Your task to perform on an android device: Toggle the flashlight Image 0: 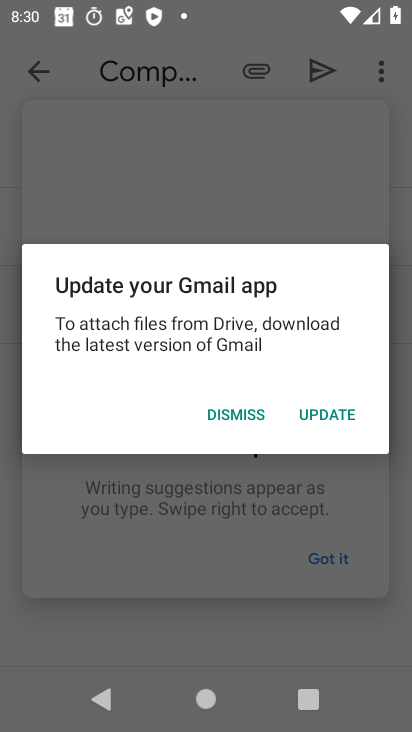
Step 0: press home button
Your task to perform on an android device: Toggle the flashlight Image 1: 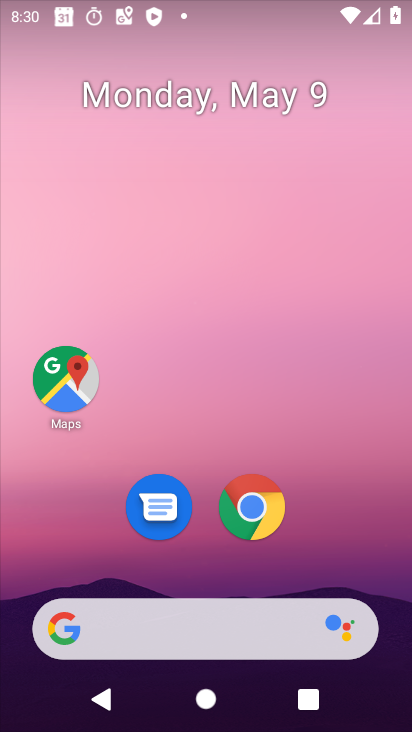
Step 1: drag from (272, 653) to (241, 261)
Your task to perform on an android device: Toggle the flashlight Image 2: 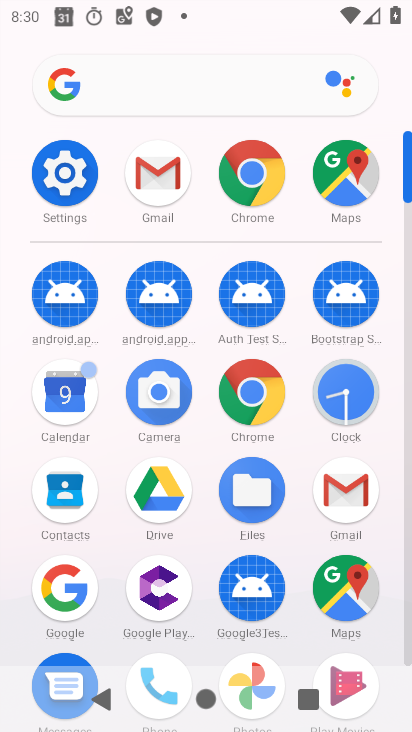
Step 2: click (65, 186)
Your task to perform on an android device: Toggle the flashlight Image 3: 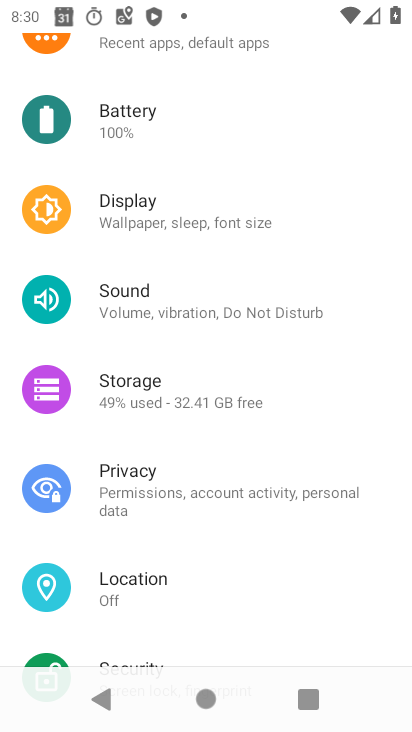
Step 3: drag from (169, 84) to (194, 655)
Your task to perform on an android device: Toggle the flashlight Image 4: 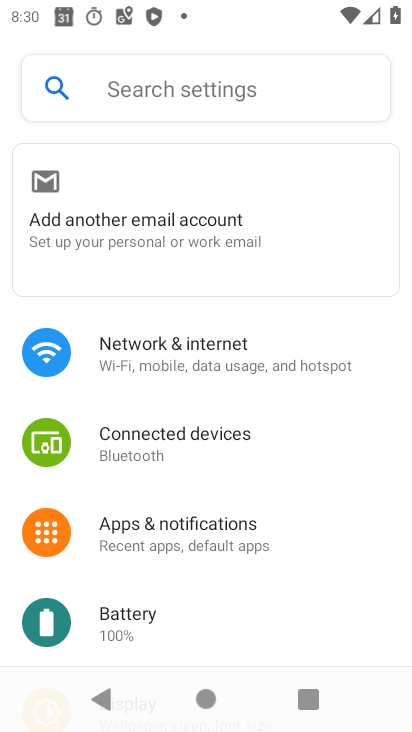
Step 4: click (135, 72)
Your task to perform on an android device: Toggle the flashlight Image 5: 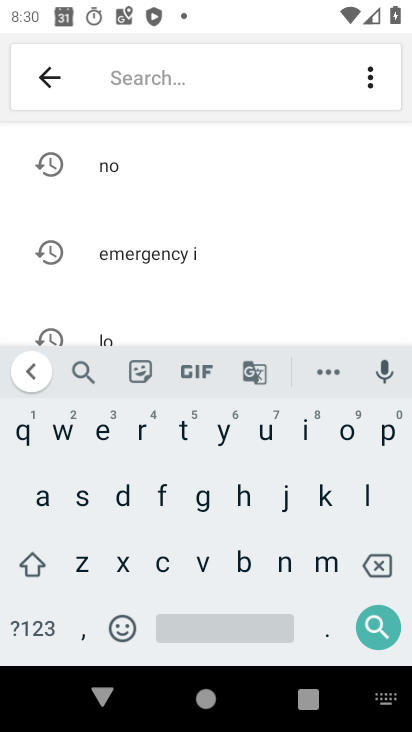
Step 5: click (164, 498)
Your task to perform on an android device: Toggle the flashlight Image 6: 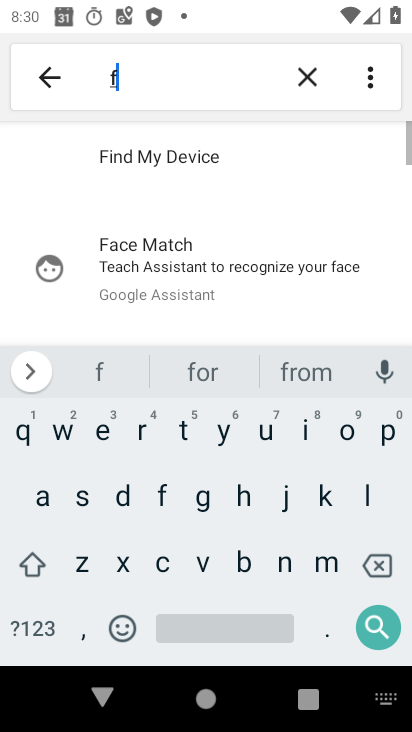
Step 6: click (371, 499)
Your task to perform on an android device: Toggle the flashlight Image 7: 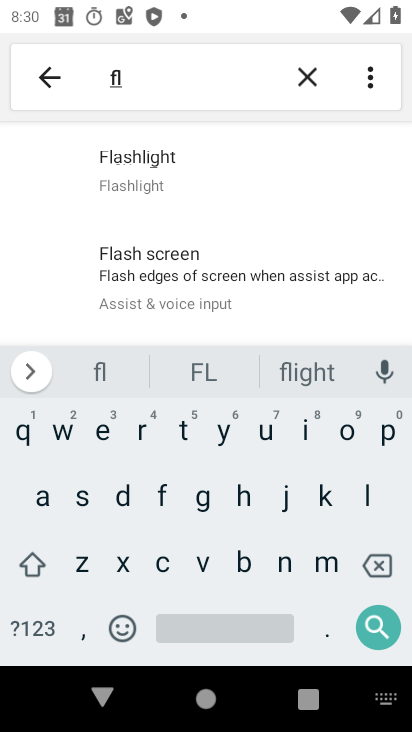
Step 7: click (156, 171)
Your task to perform on an android device: Toggle the flashlight Image 8: 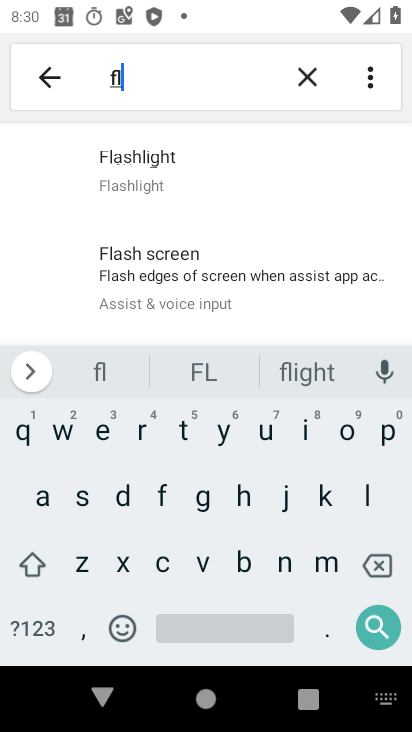
Step 8: task complete